Your task to perform on an android device: Open settings on Google Maps Image 0: 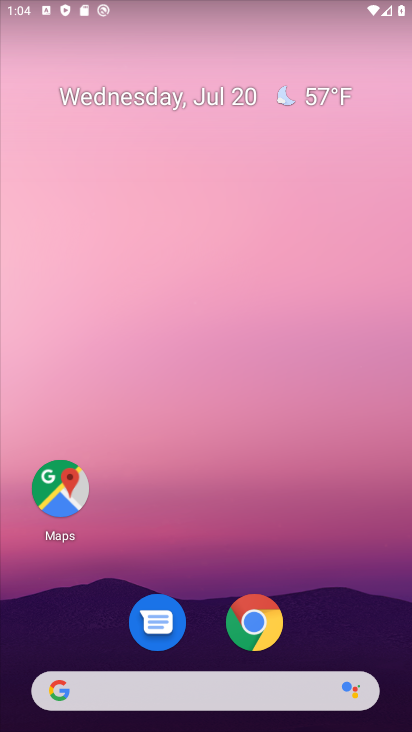
Step 0: click (70, 495)
Your task to perform on an android device: Open settings on Google Maps Image 1: 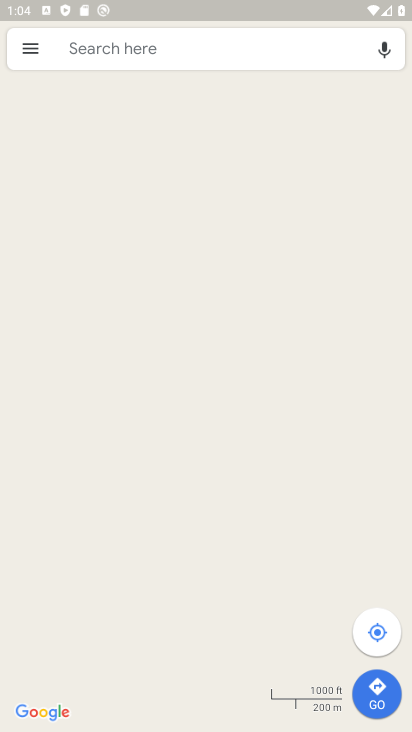
Step 1: click (17, 53)
Your task to perform on an android device: Open settings on Google Maps Image 2: 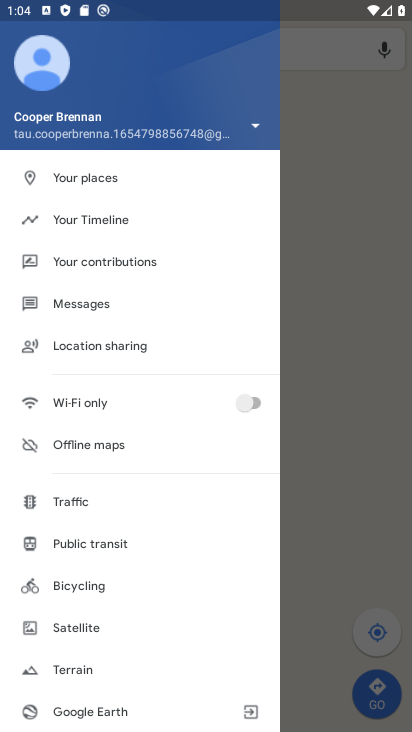
Step 2: drag from (103, 681) to (112, 271)
Your task to perform on an android device: Open settings on Google Maps Image 3: 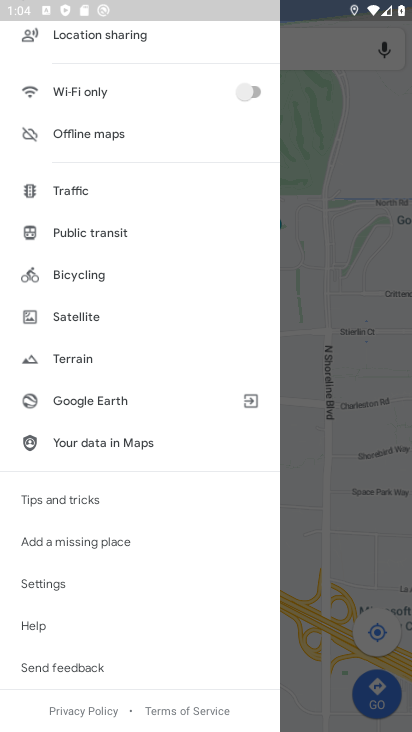
Step 3: click (80, 580)
Your task to perform on an android device: Open settings on Google Maps Image 4: 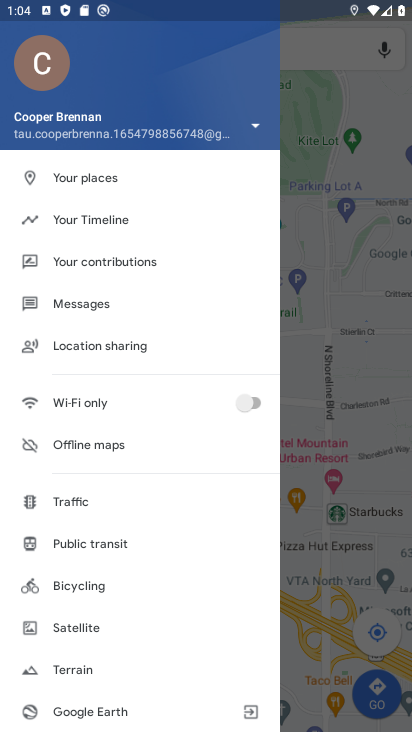
Step 4: drag from (144, 536) to (167, 224)
Your task to perform on an android device: Open settings on Google Maps Image 5: 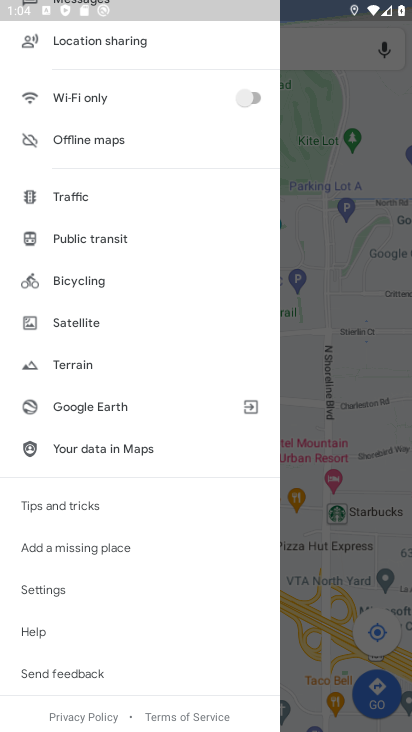
Step 5: click (79, 588)
Your task to perform on an android device: Open settings on Google Maps Image 6: 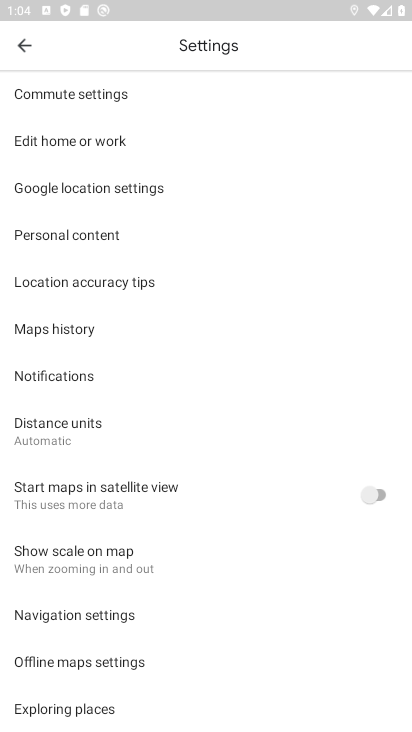
Step 6: task complete